Your task to perform on an android device: Search for flights from Buenos aires to Tokyo Image 0: 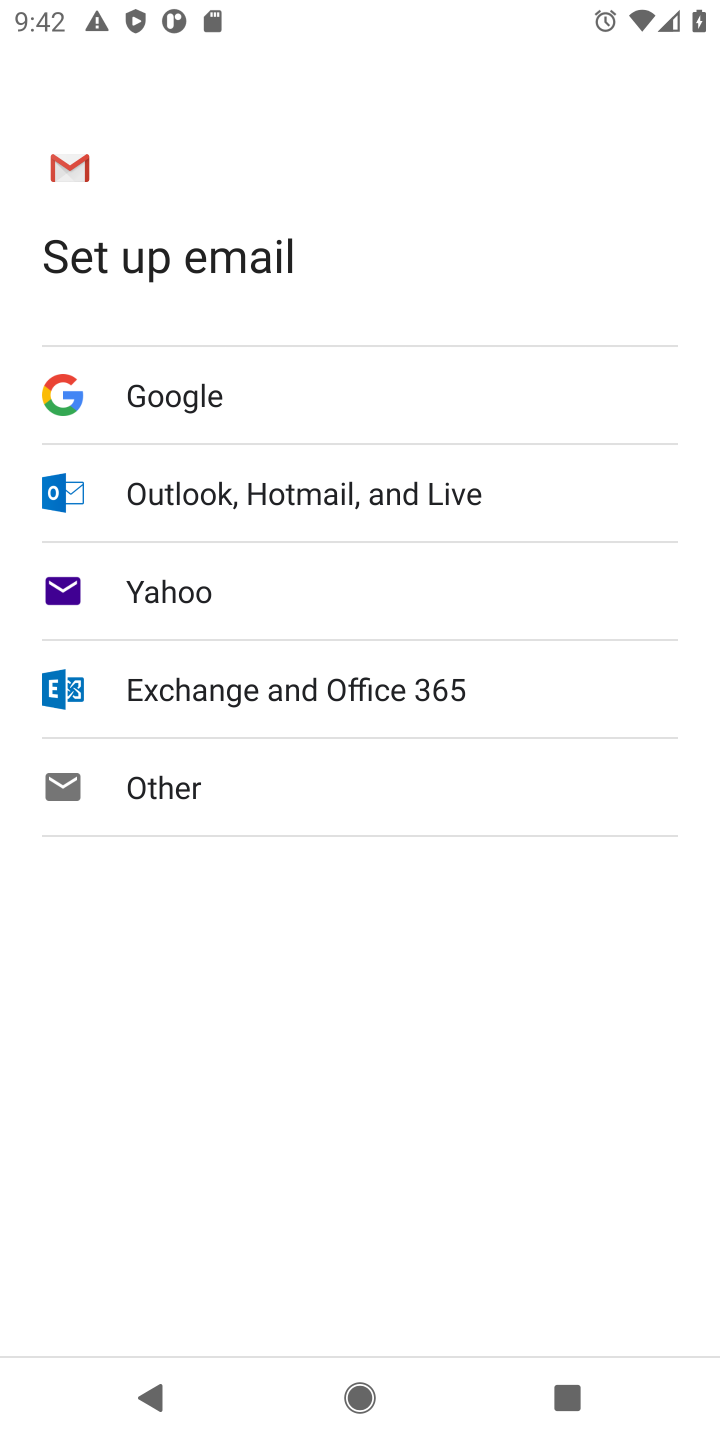
Step 0: press home button
Your task to perform on an android device: Search for flights from Buenos aires to Tokyo Image 1: 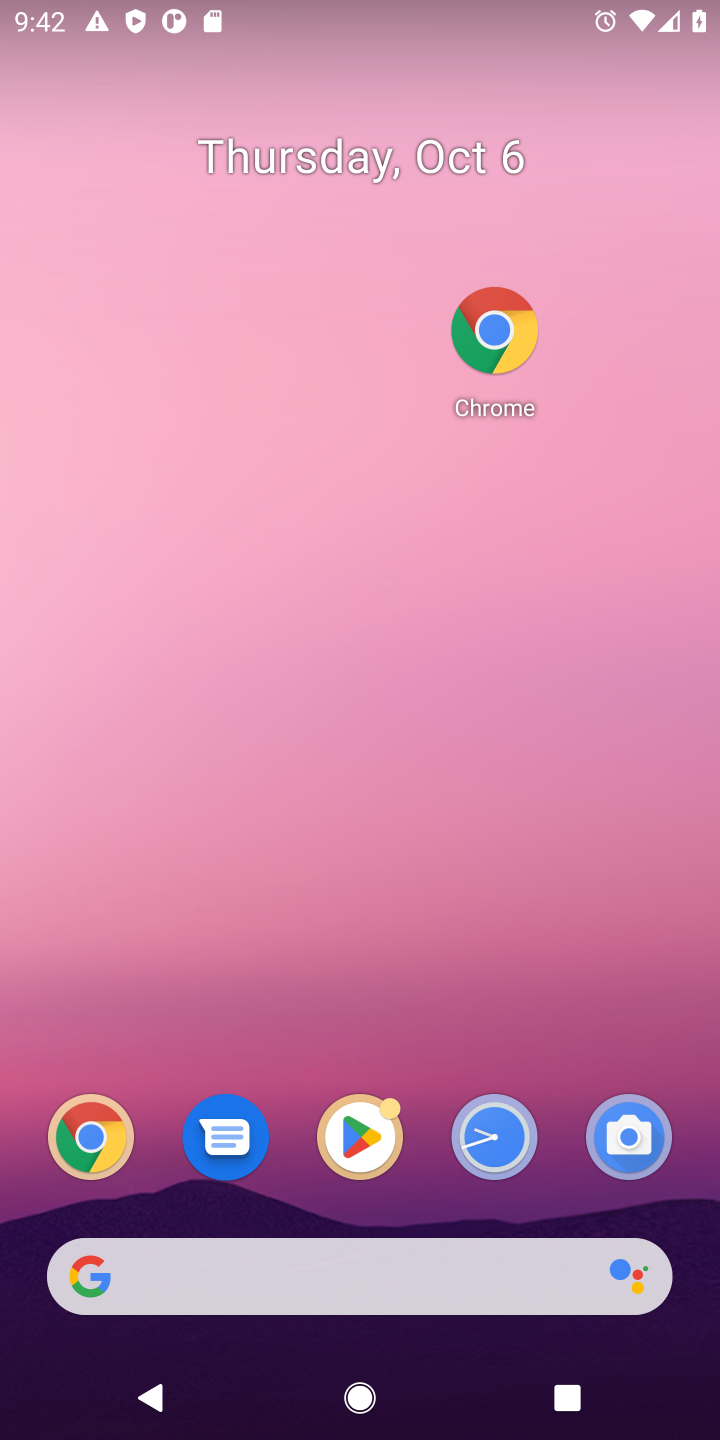
Step 1: click (132, 1134)
Your task to perform on an android device: Search for flights from Buenos aires to Tokyo Image 2: 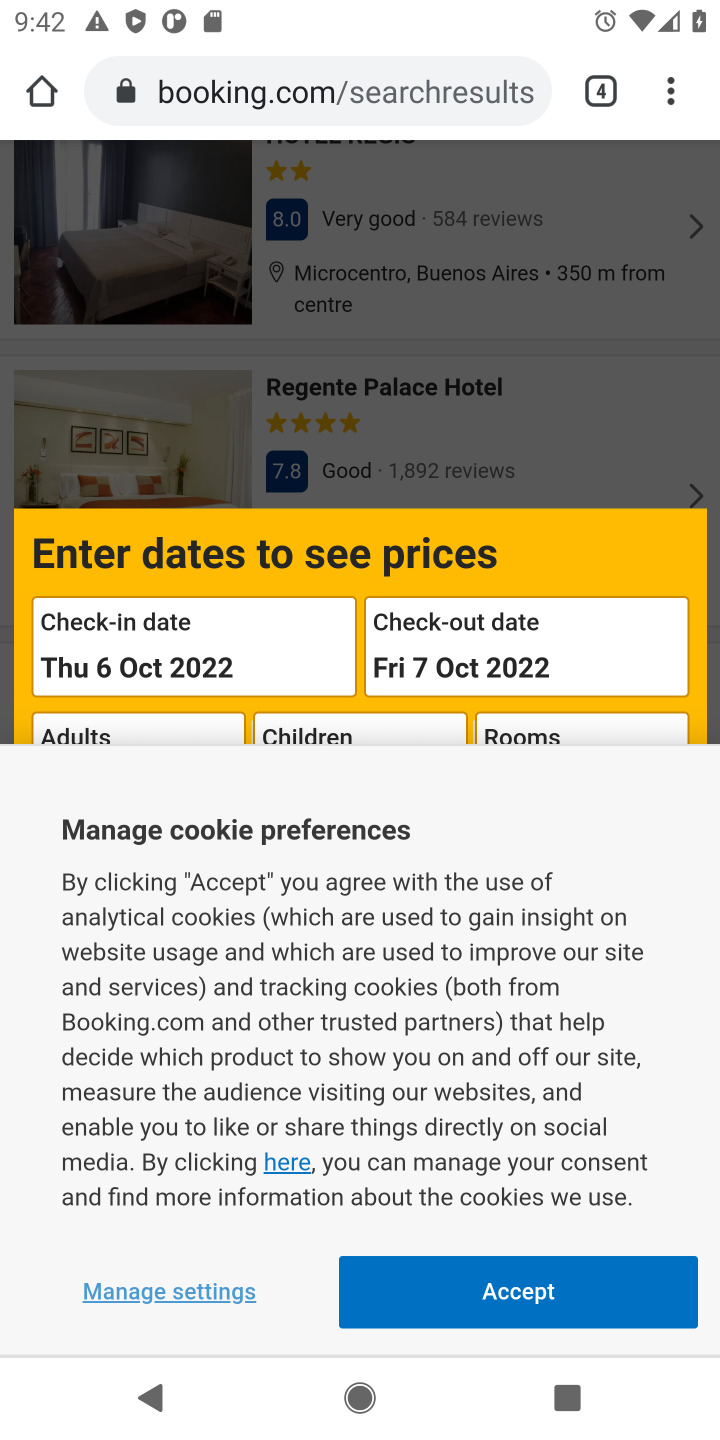
Step 2: click (536, 97)
Your task to perform on an android device: Search for flights from Buenos aires to Tokyo Image 3: 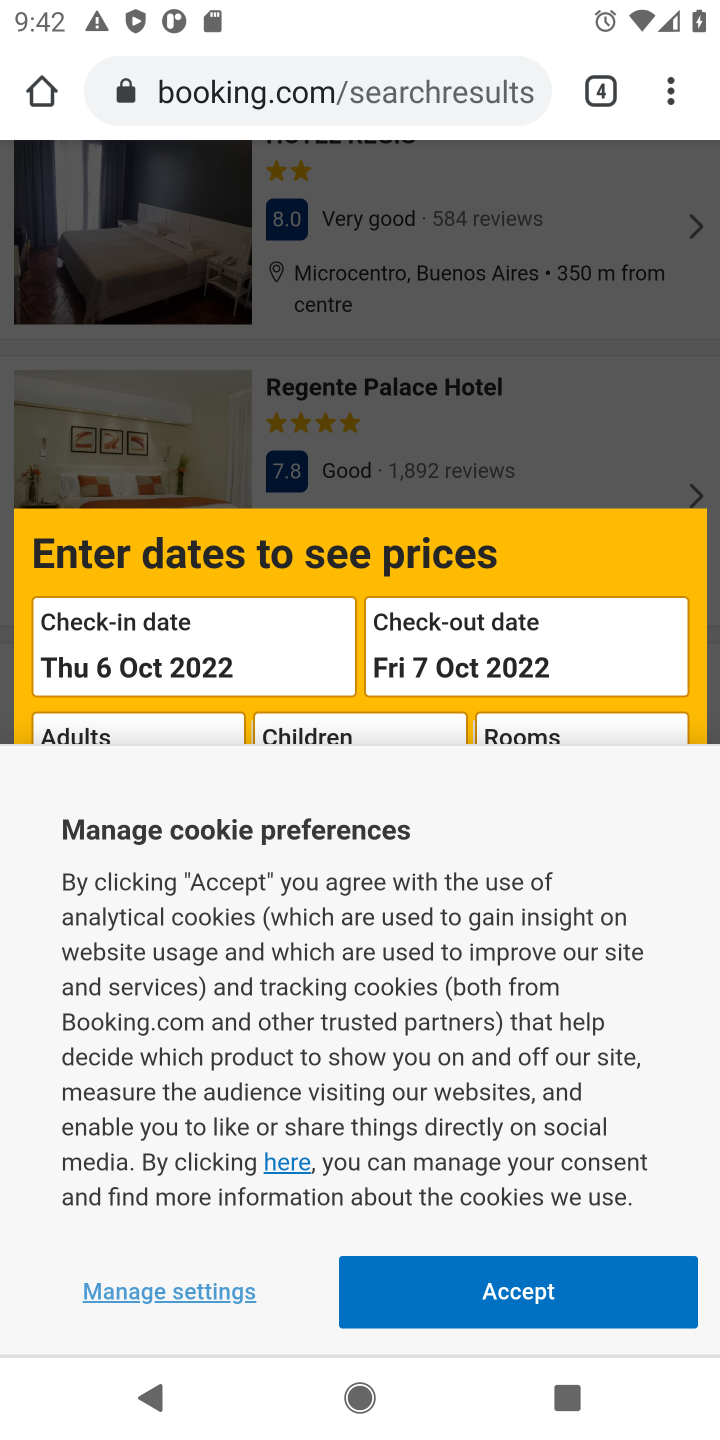
Step 3: click (282, 83)
Your task to perform on an android device: Search for flights from Buenos aires to Tokyo Image 4: 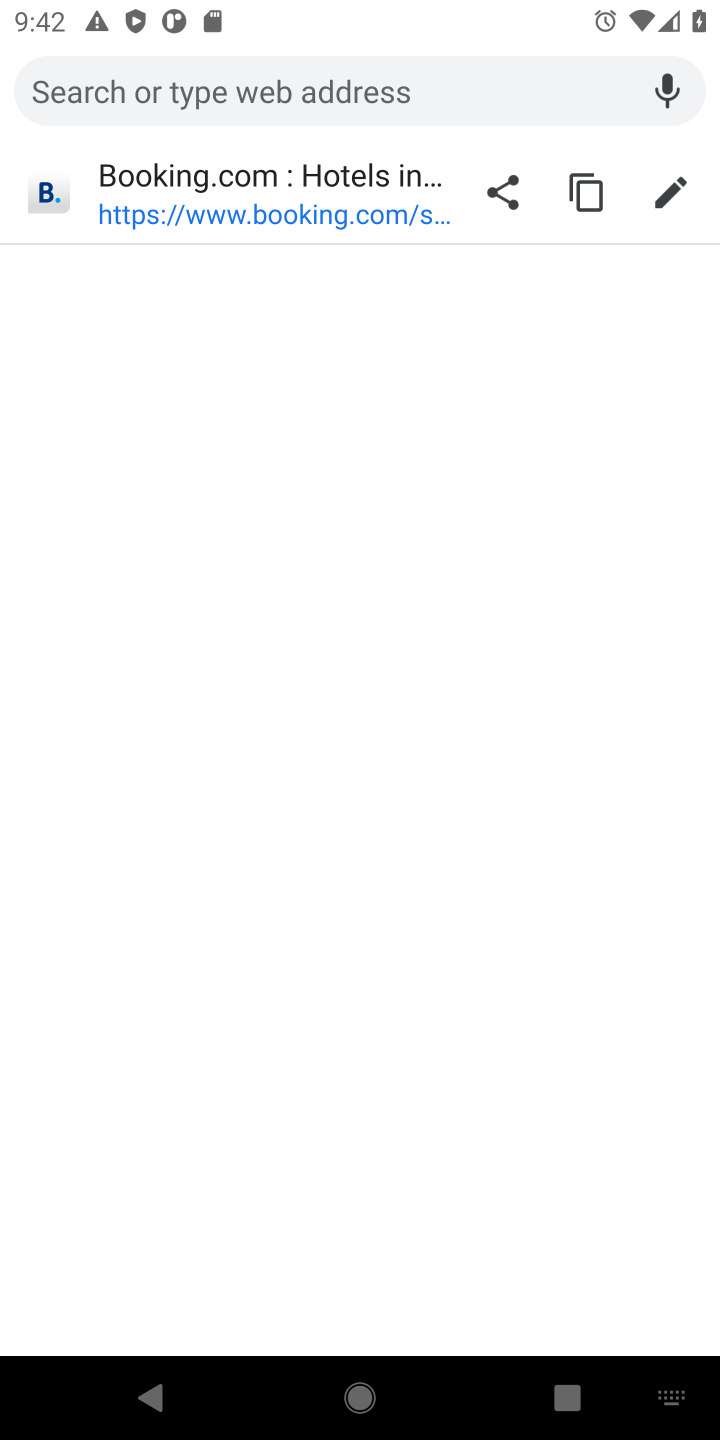
Step 4: type " flights from Buenos aires to Tokyo"
Your task to perform on an android device: Search for flights from Buenos aires to Tokyo Image 5: 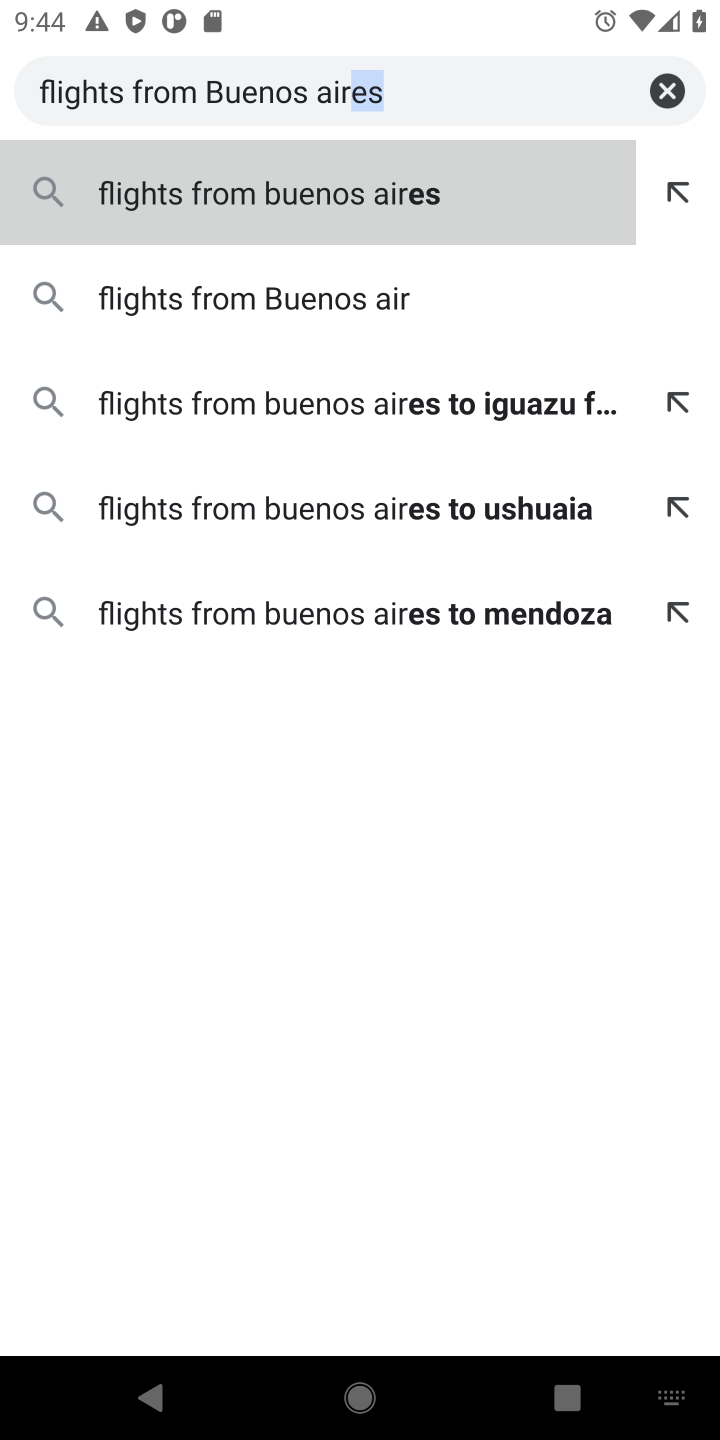
Step 5: click (406, 101)
Your task to perform on an android device: Search for flights from Buenos aires to Tokyo Image 6: 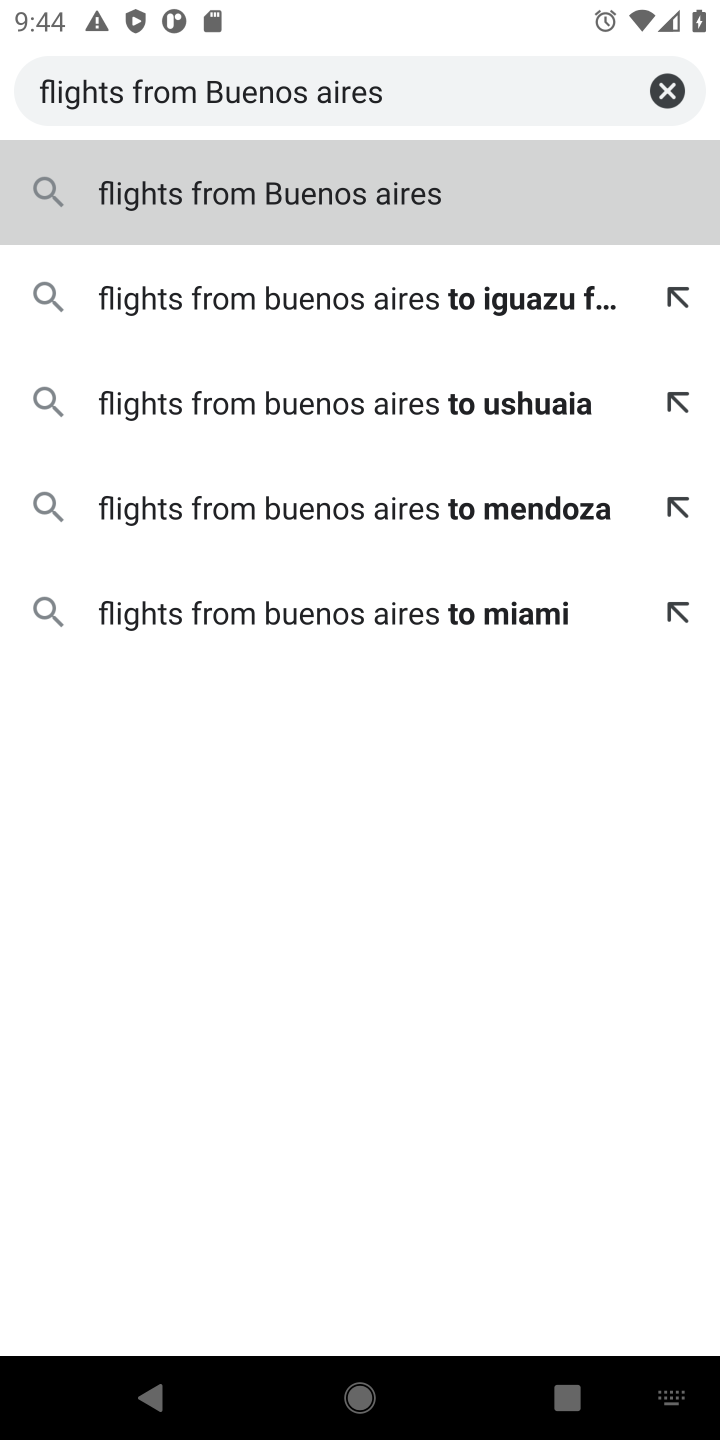
Step 6: type " to tokyo"
Your task to perform on an android device: Search for flights from Buenos aires to Tokyo Image 7: 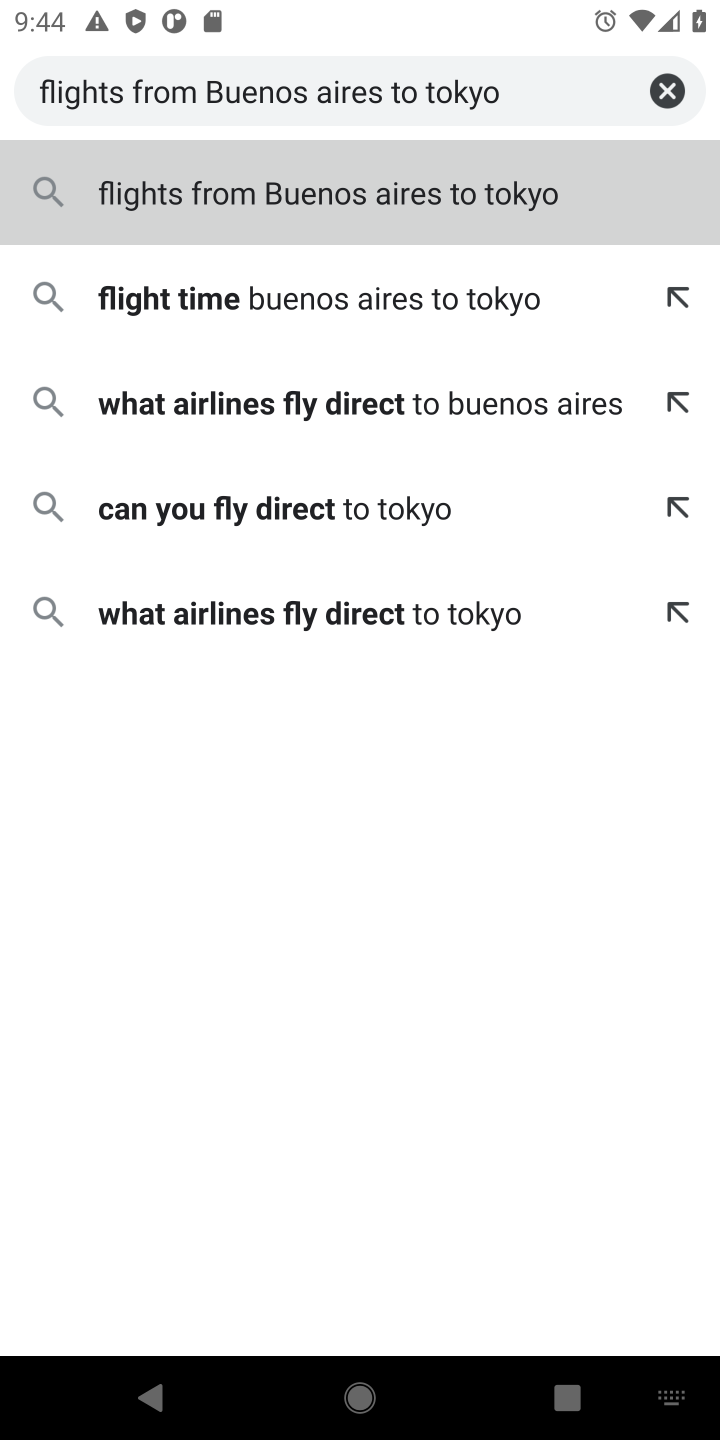
Step 7: click (291, 195)
Your task to perform on an android device: Search for flights from Buenos aires to Tokyo Image 8: 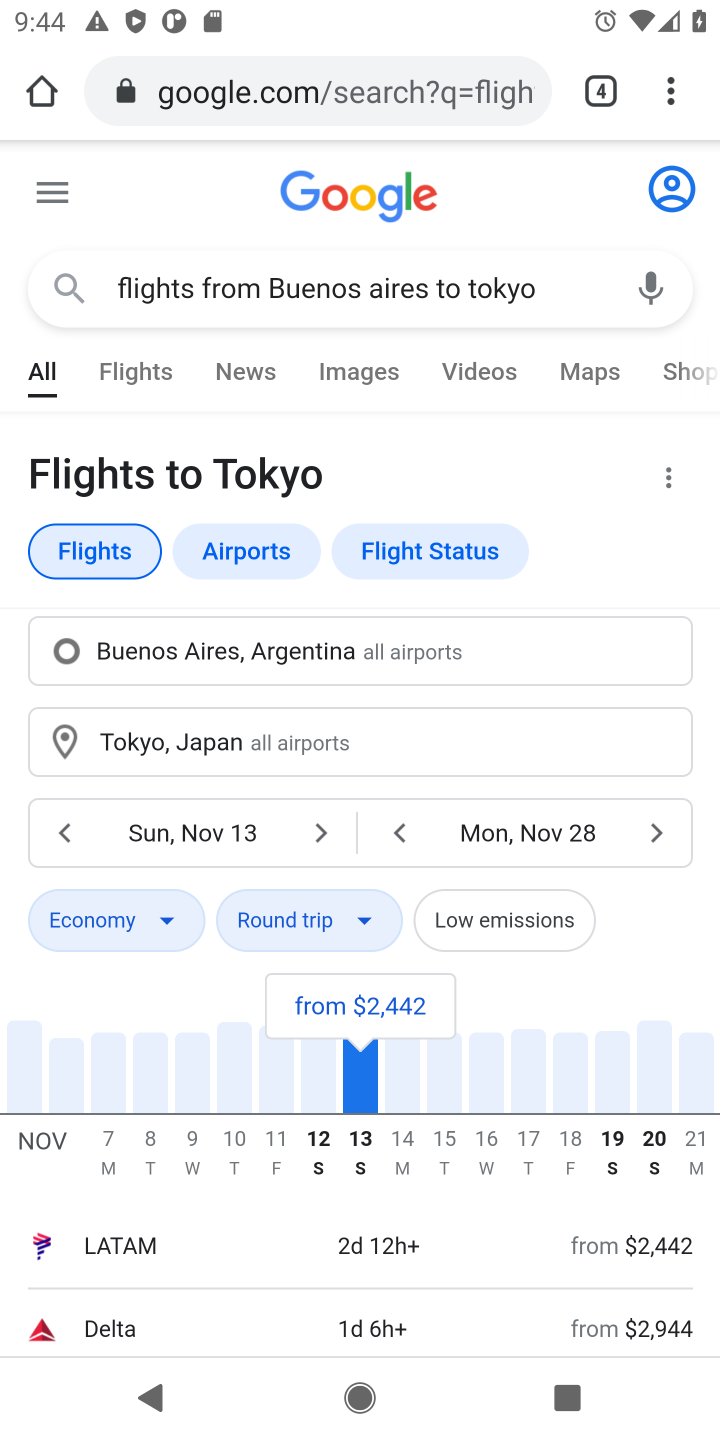
Step 8: task complete